Your task to perform on an android device: Turn off the flashlight Image 0: 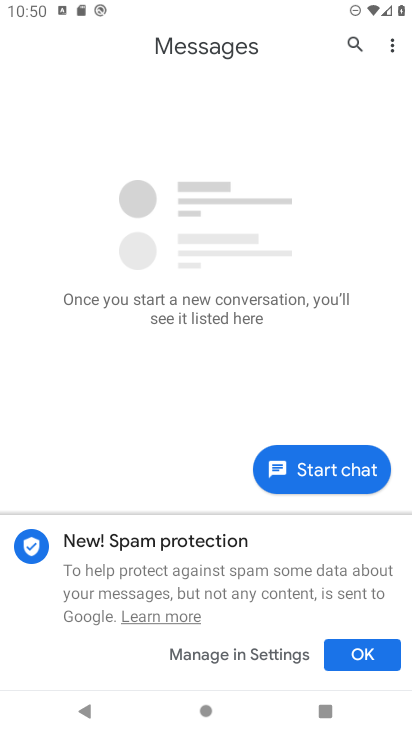
Step 0: press home button
Your task to perform on an android device: Turn off the flashlight Image 1: 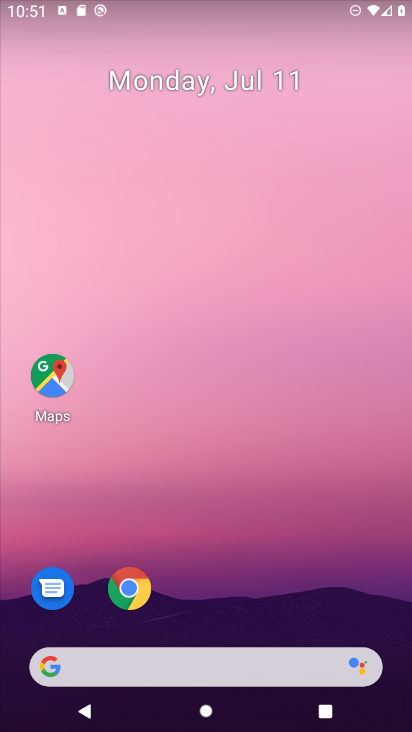
Step 1: drag from (339, 602) to (225, 70)
Your task to perform on an android device: Turn off the flashlight Image 2: 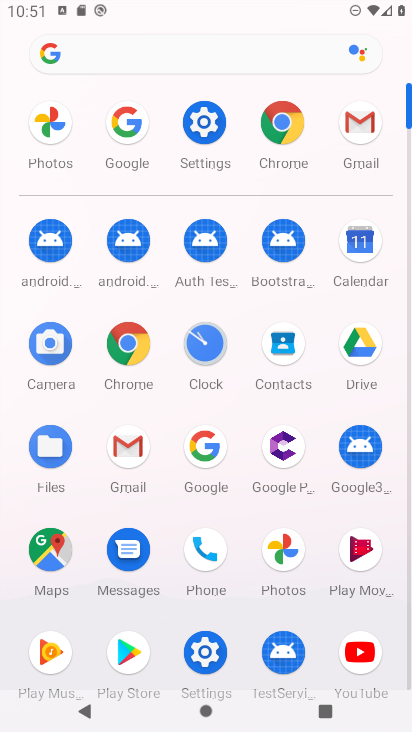
Step 2: click (194, 118)
Your task to perform on an android device: Turn off the flashlight Image 3: 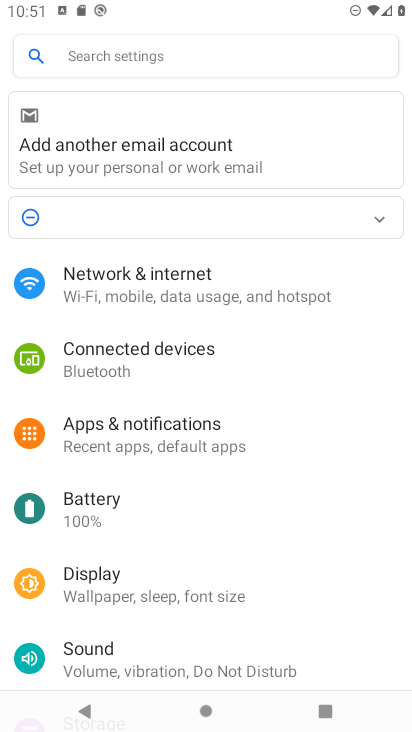
Step 3: task complete